Your task to perform on an android device: toggle show notifications on the lock screen Image 0: 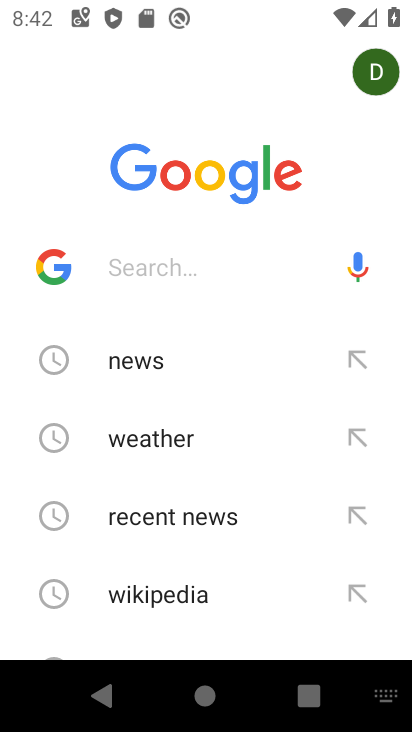
Step 0: press home button
Your task to perform on an android device: toggle show notifications on the lock screen Image 1: 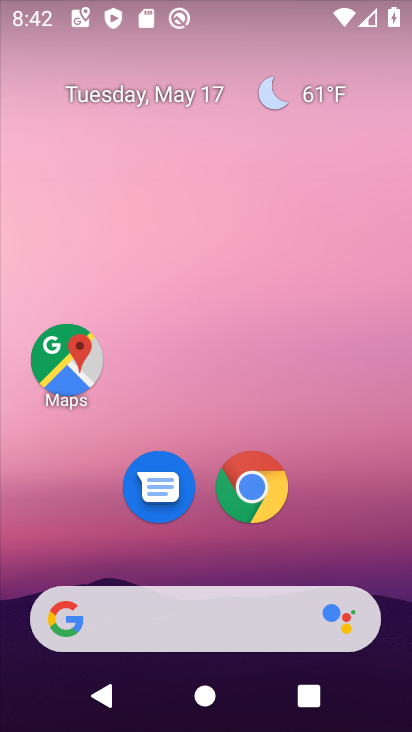
Step 1: drag from (200, 621) to (299, 140)
Your task to perform on an android device: toggle show notifications on the lock screen Image 2: 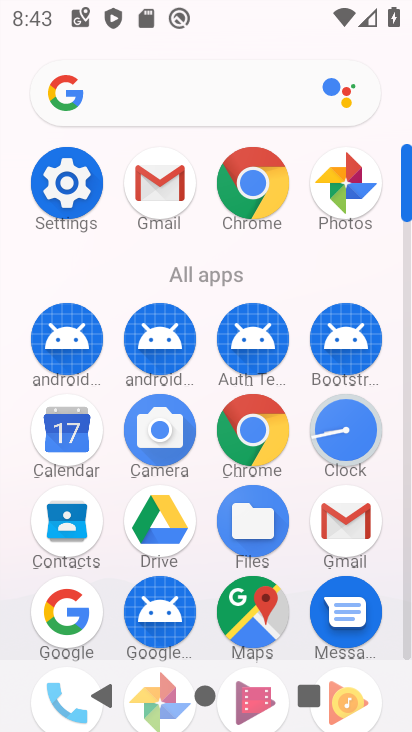
Step 2: click (88, 182)
Your task to perform on an android device: toggle show notifications on the lock screen Image 3: 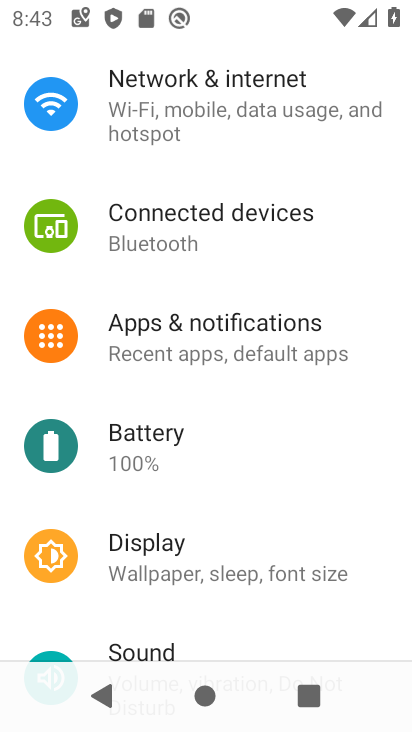
Step 3: click (232, 333)
Your task to perform on an android device: toggle show notifications on the lock screen Image 4: 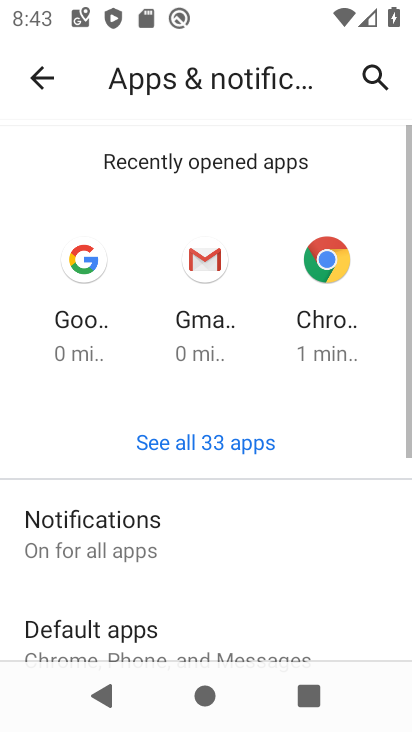
Step 4: click (109, 509)
Your task to perform on an android device: toggle show notifications on the lock screen Image 5: 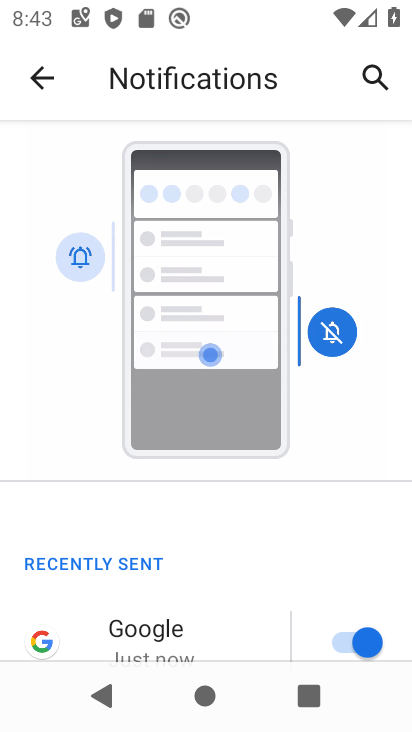
Step 5: drag from (188, 603) to (411, 64)
Your task to perform on an android device: toggle show notifications on the lock screen Image 6: 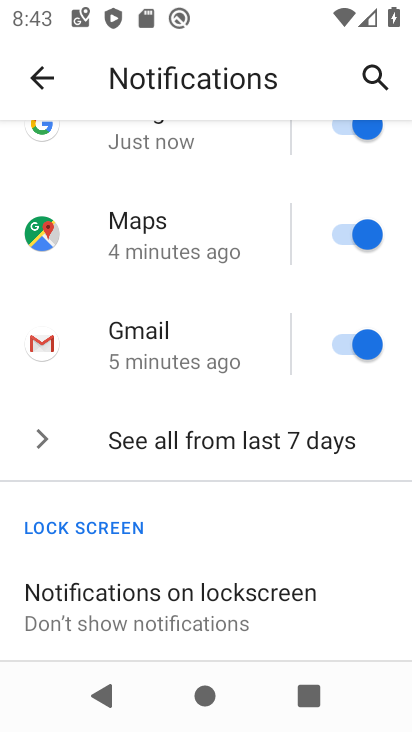
Step 6: click (200, 585)
Your task to perform on an android device: toggle show notifications on the lock screen Image 7: 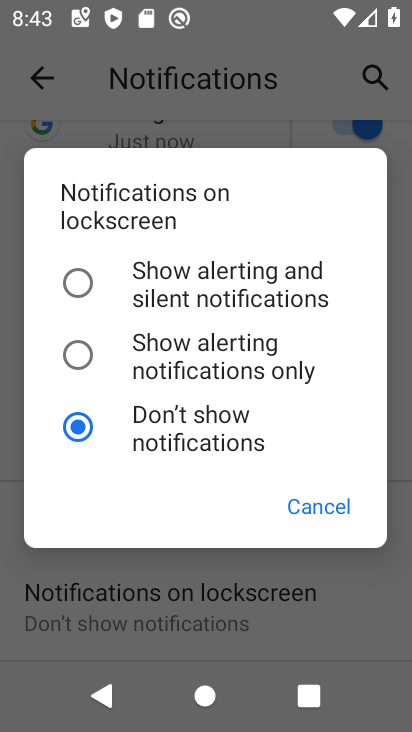
Step 7: click (81, 277)
Your task to perform on an android device: toggle show notifications on the lock screen Image 8: 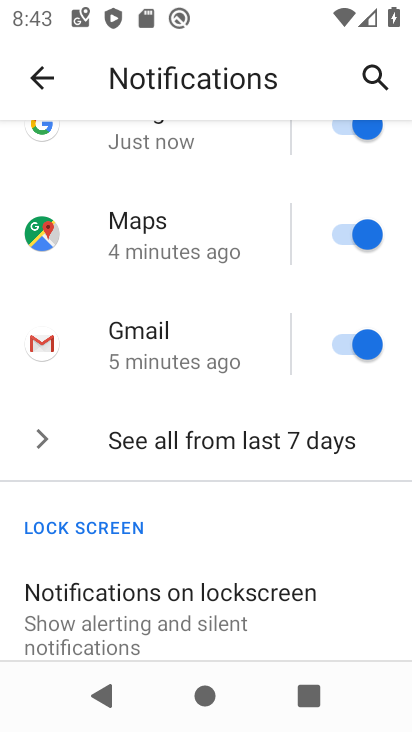
Step 8: task complete